Your task to perform on an android device: toggle javascript in the chrome app Image 0: 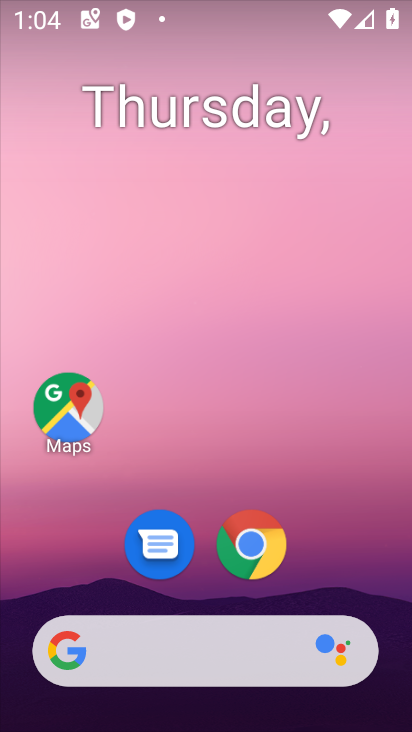
Step 0: click (250, 540)
Your task to perform on an android device: toggle javascript in the chrome app Image 1: 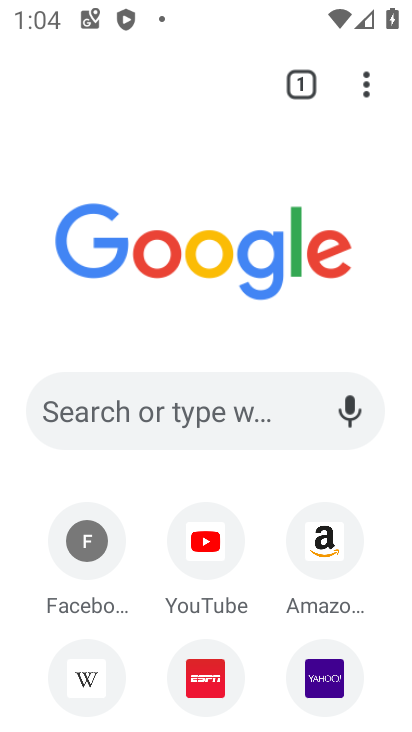
Step 1: click (367, 92)
Your task to perform on an android device: toggle javascript in the chrome app Image 2: 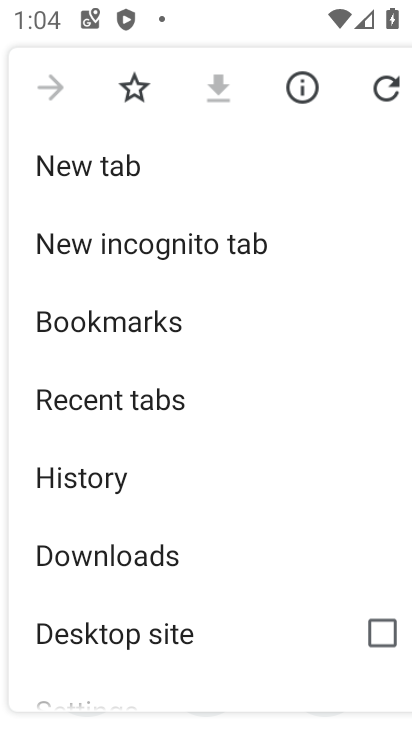
Step 2: drag from (162, 669) to (138, 155)
Your task to perform on an android device: toggle javascript in the chrome app Image 3: 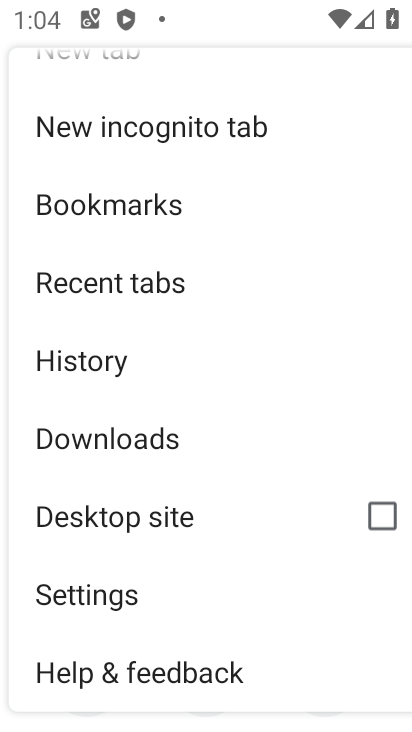
Step 3: click (117, 583)
Your task to perform on an android device: toggle javascript in the chrome app Image 4: 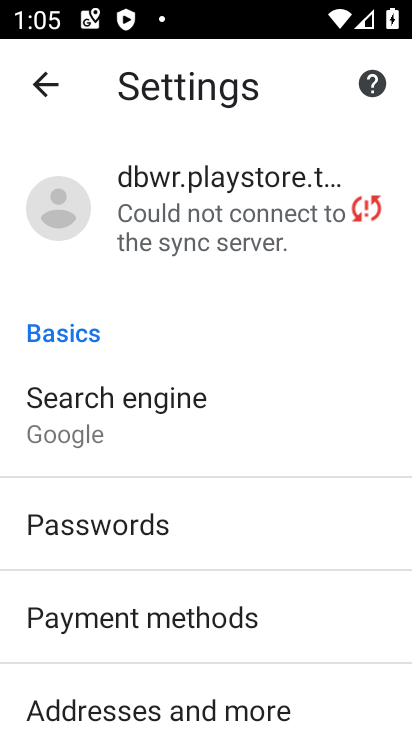
Step 4: drag from (149, 614) to (152, 214)
Your task to perform on an android device: toggle javascript in the chrome app Image 5: 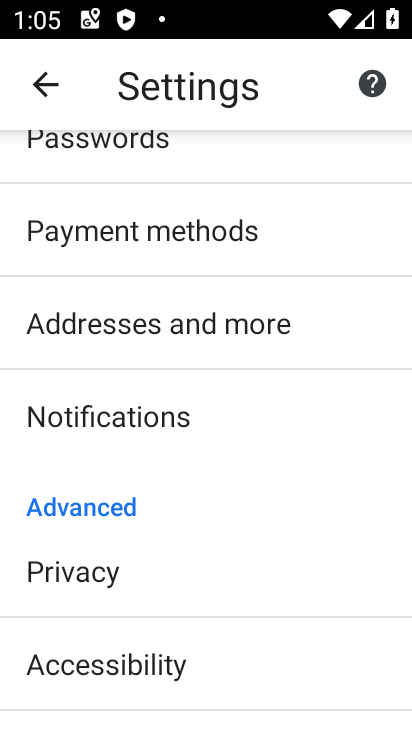
Step 5: drag from (103, 613) to (121, 218)
Your task to perform on an android device: toggle javascript in the chrome app Image 6: 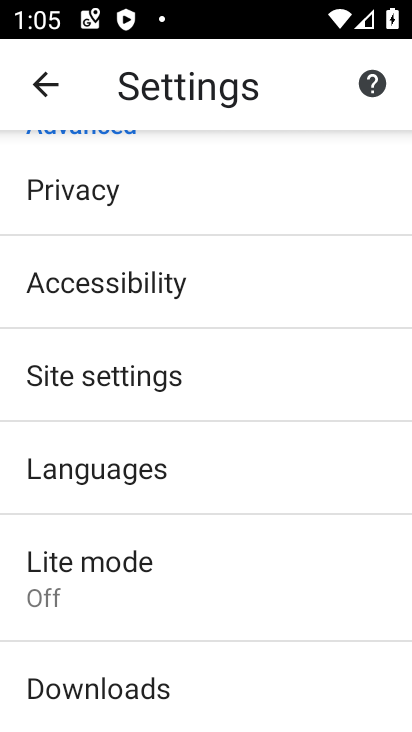
Step 6: click (98, 370)
Your task to perform on an android device: toggle javascript in the chrome app Image 7: 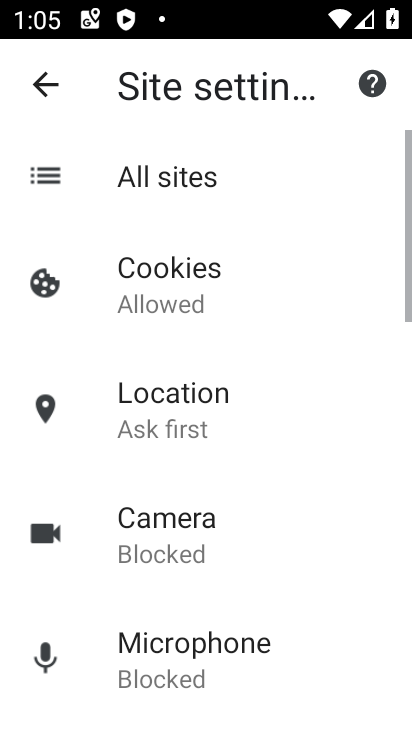
Step 7: drag from (195, 646) to (202, 242)
Your task to perform on an android device: toggle javascript in the chrome app Image 8: 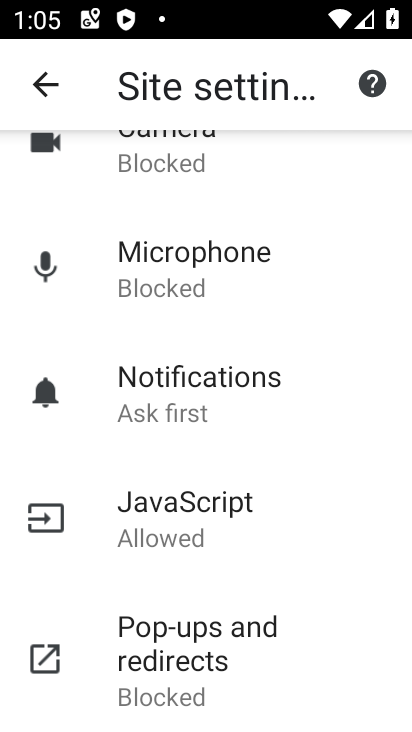
Step 8: click (190, 504)
Your task to perform on an android device: toggle javascript in the chrome app Image 9: 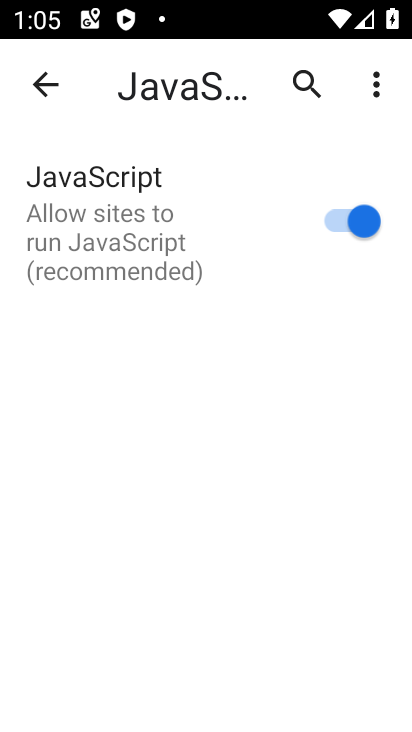
Step 9: click (344, 216)
Your task to perform on an android device: toggle javascript in the chrome app Image 10: 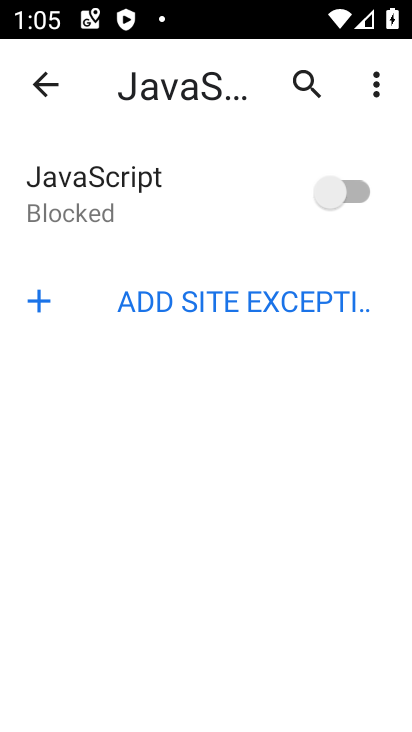
Step 10: task complete